Your task to perform on an android device: turn on the 12-hour format for clock Image 0: 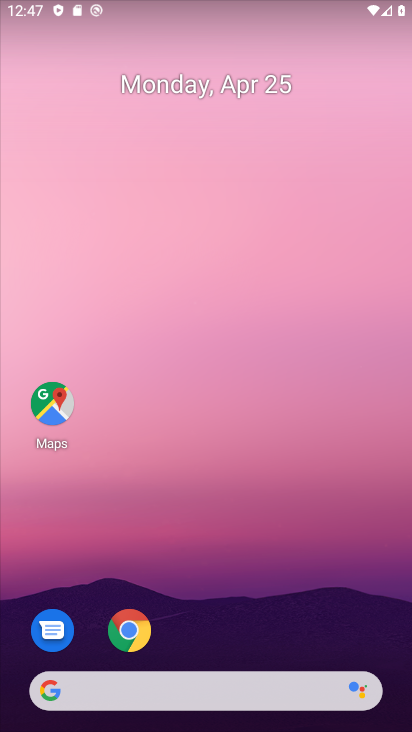
Step 0: drag from (198, 542) to (276, 135)
Your task to perform on an android device: turn on the 12-hour format for clock Image 1: 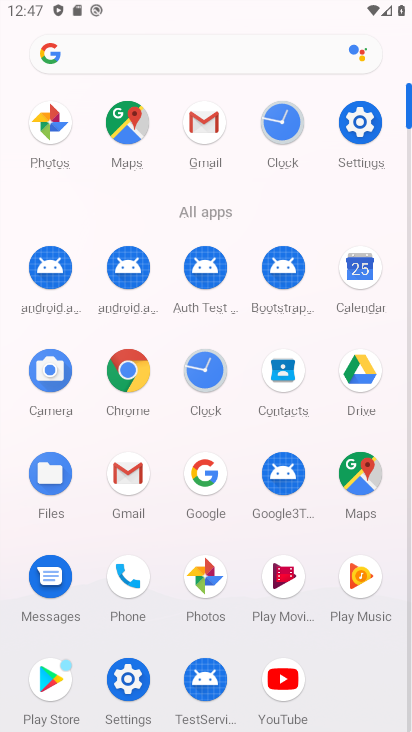
Step 1: click (204, 359)
Your task to perform on an android device: turn on the 12-hour format for clock Image 2: 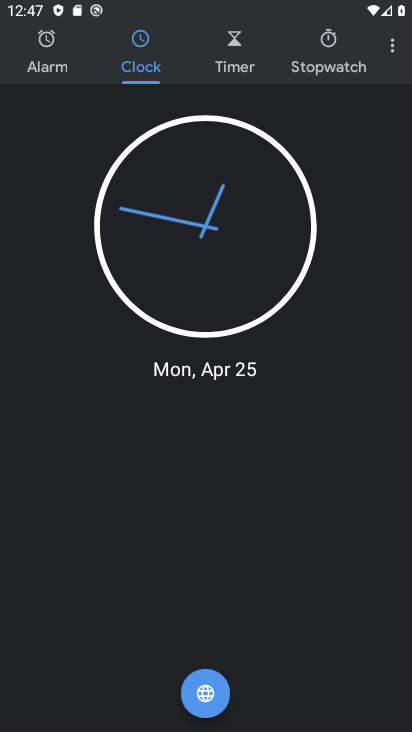
Step 2: click (386, 42)
Your task to perform on an android device: turn on the 12-hour format for clock Image 3: 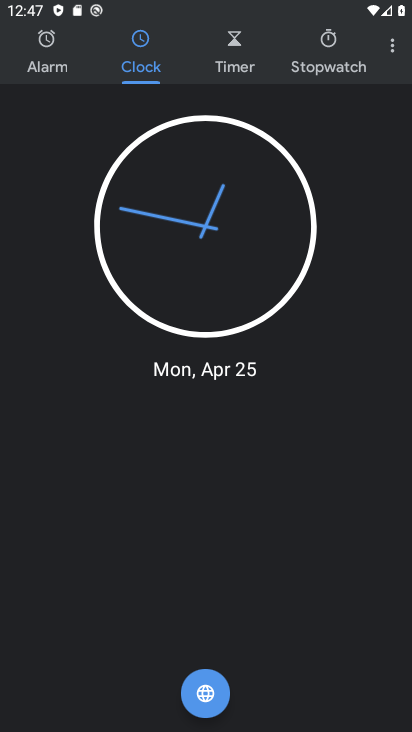
Step 3: click (387, 58)
Your task to perform on an android device: turn on the 12-hour format for clock Image 4: 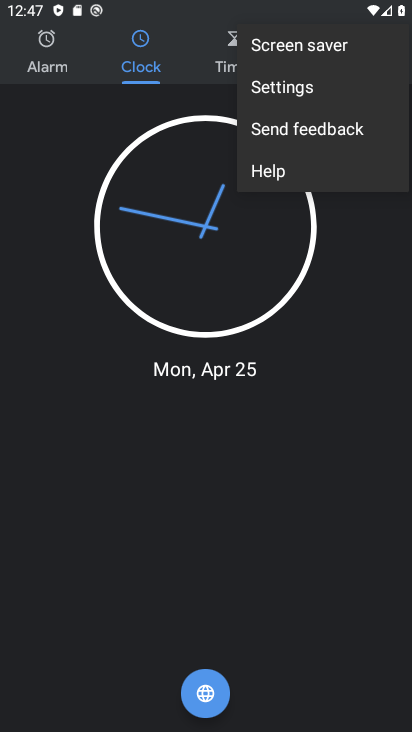
Step 4: click (358, 79)
Your task to perform on an android device: turn on the 12-hour format for clock Image 5: 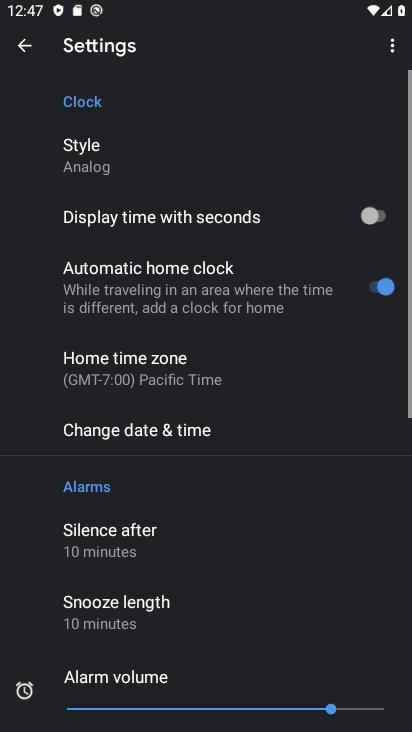
Step 5: click (230, 437)
Your task to perform on an android device: turn on the 12-hour format for clock Image 6: 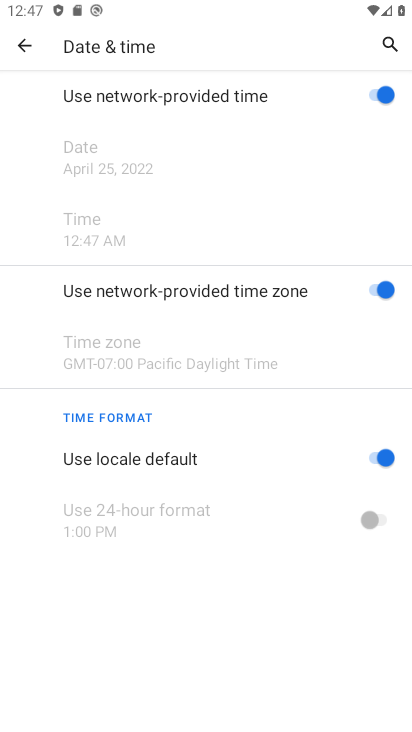
Step 6: task complete